Your task to perform on an android device: set an alarm Image 0: 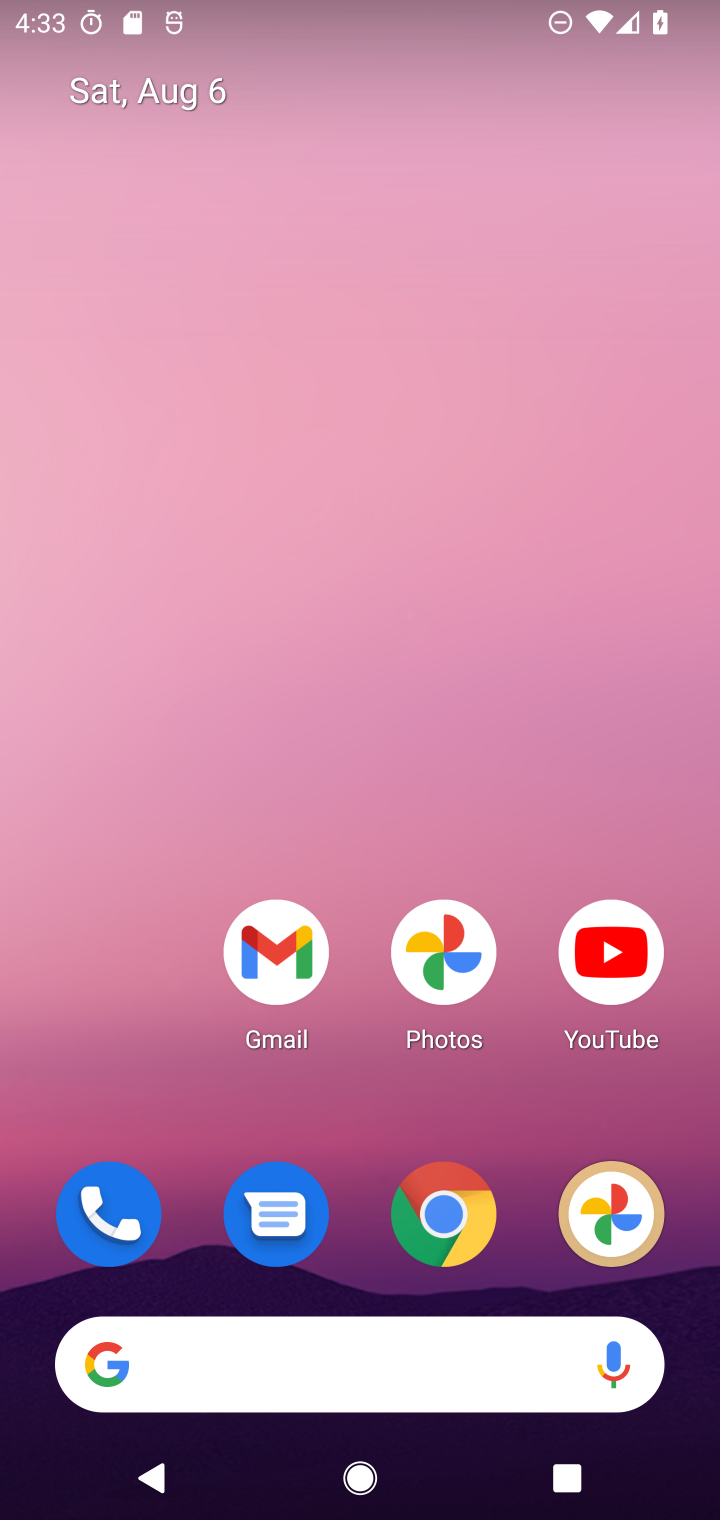
Step 0: drag from (348, 1059) to (516, 311)
Your task to perform on an android device: set an alarm Image 1: 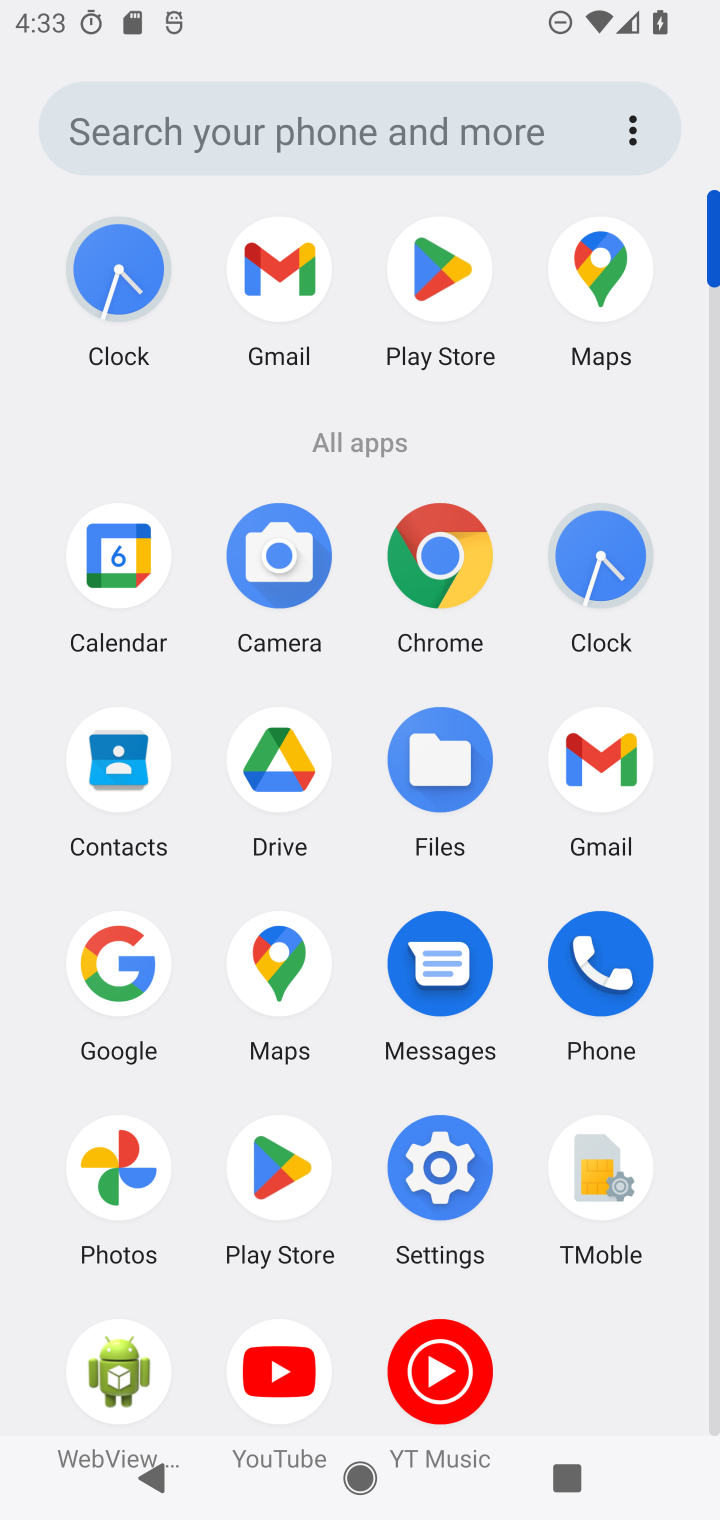
Step 1: click (428, 1197)
Your task to perform on an android device: set an alarm Image 2: 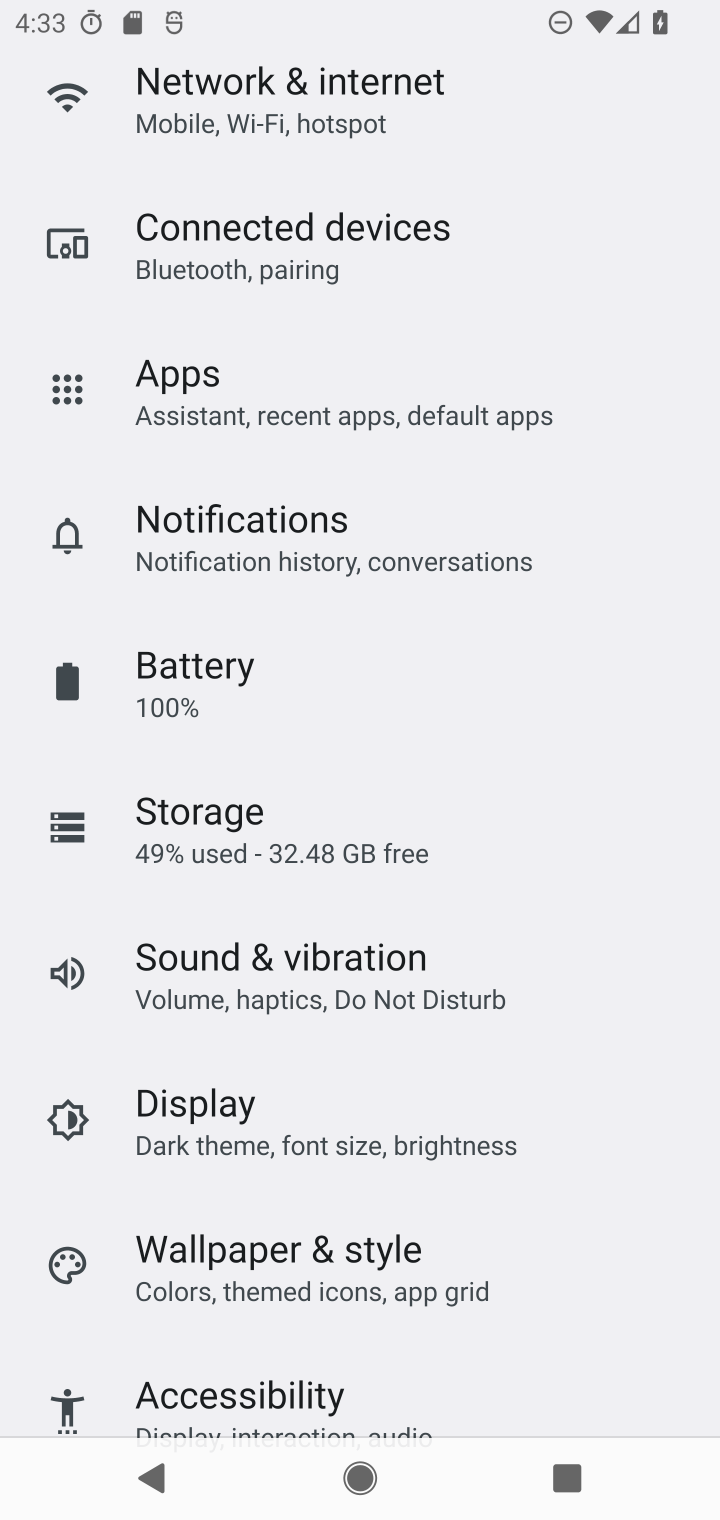
Step 2: press back button
Your task to perform on an android device: set an alarm Image 3: 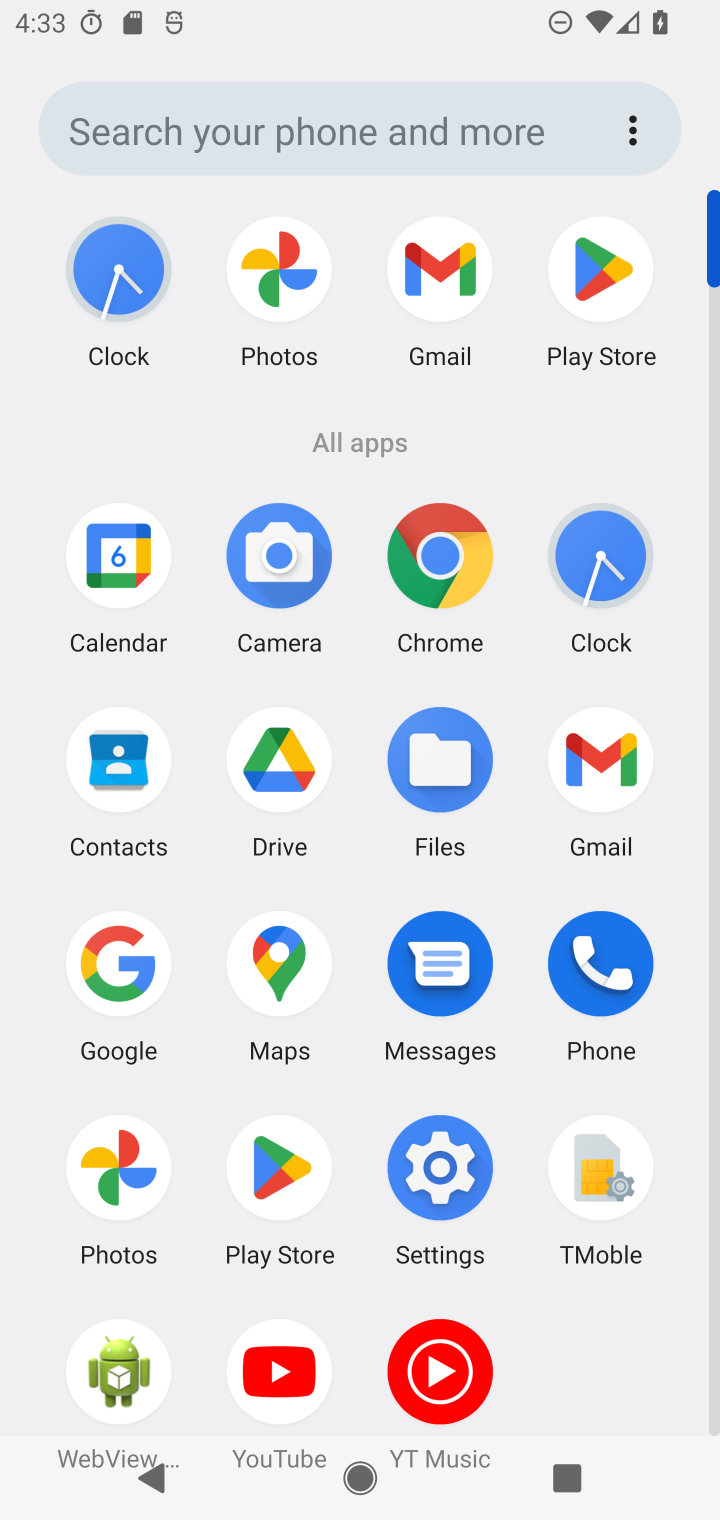
Step 3: click (594, 565)
Your task to perform on an android device: set an alarm Image 4: 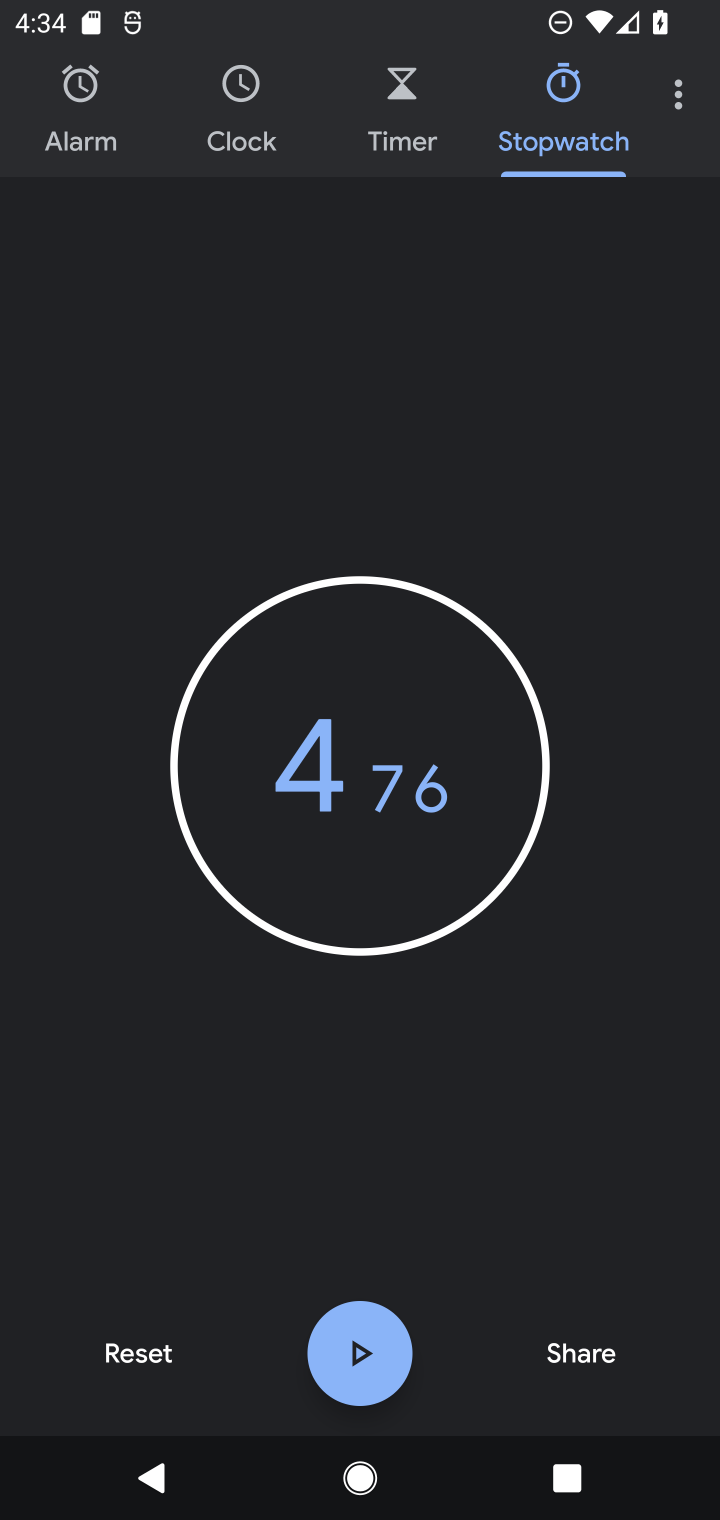
Step 4: click (63, 111)
Your task to perform on an android device: set an alarm Image 5: 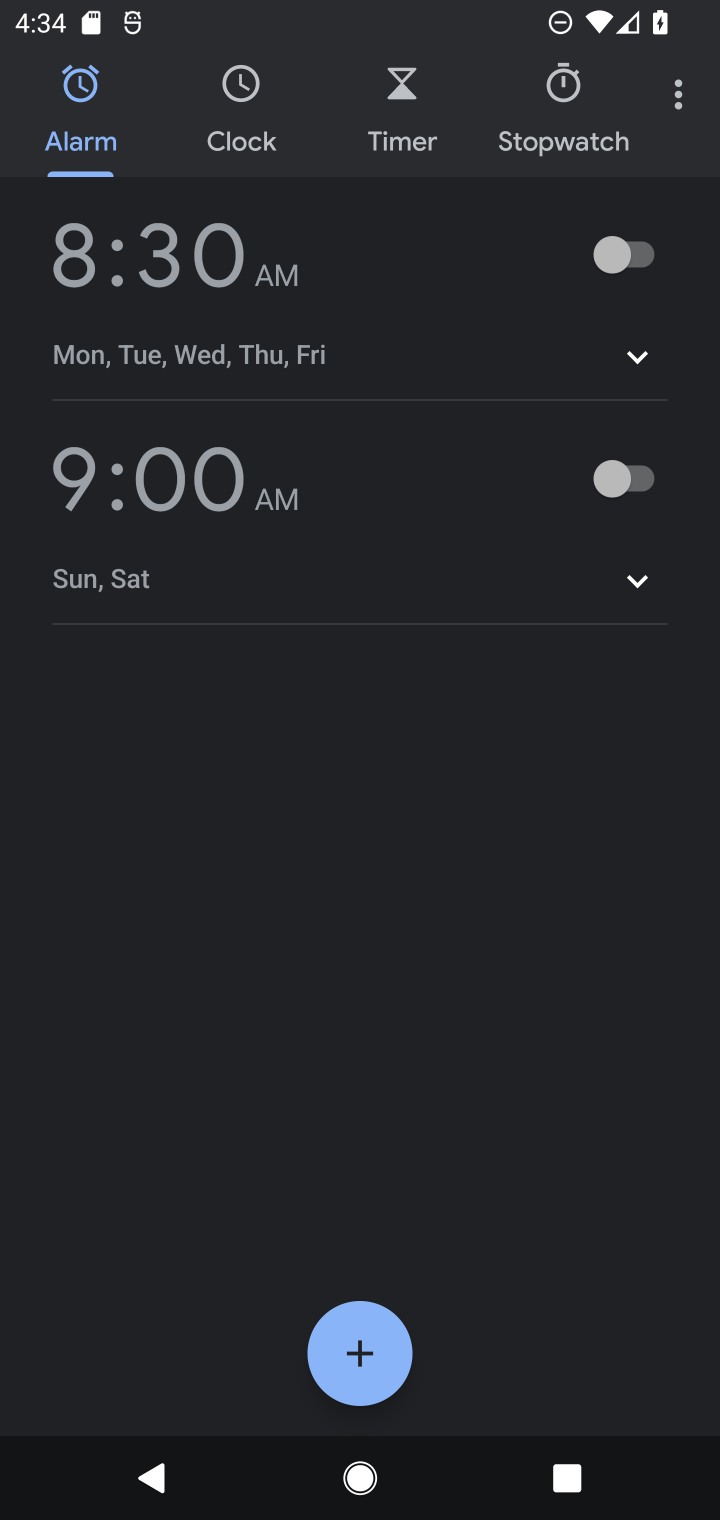
Step 5: click (651, 257)
Your task to perform on an android device: set an alarm Image 6: 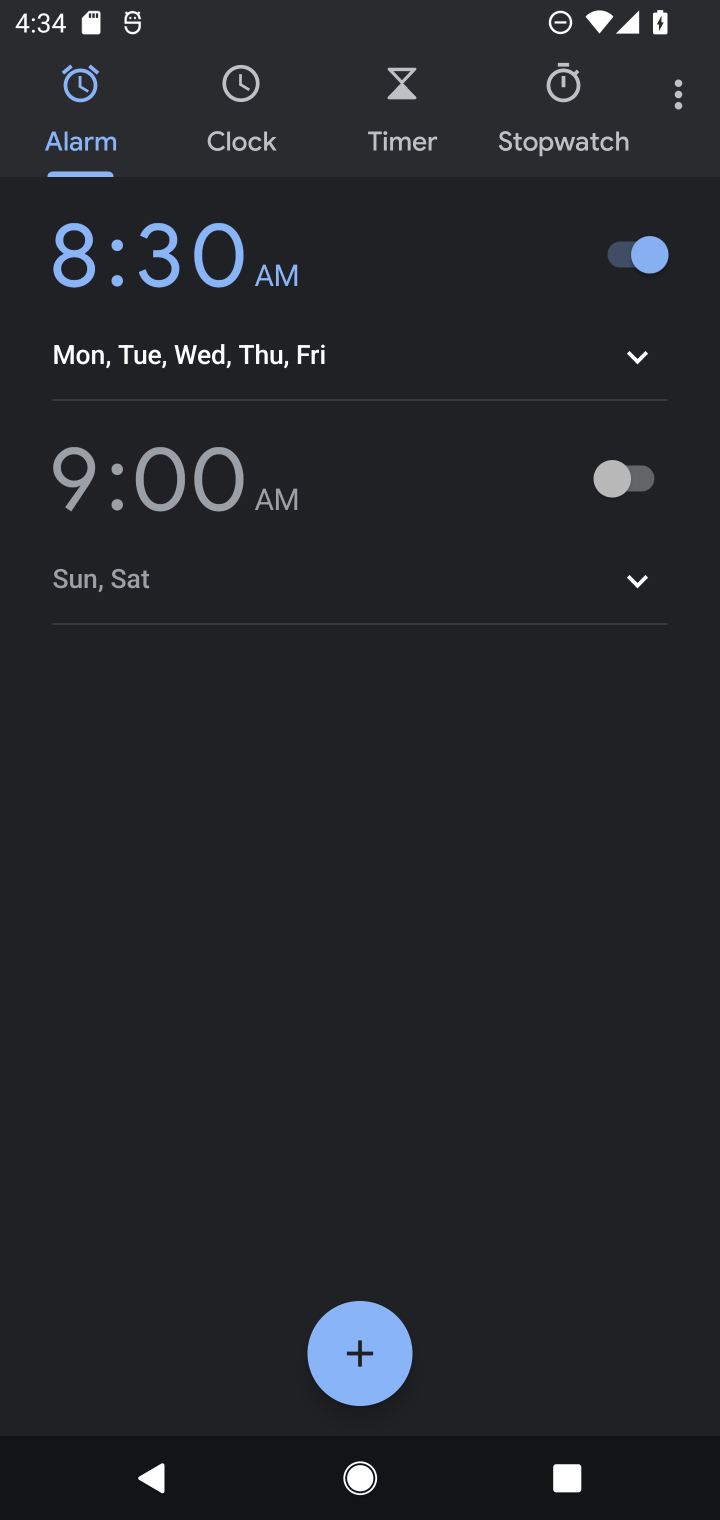
Step 6: task complete